Your task to perform on an android device: turn off wifi Image 0: 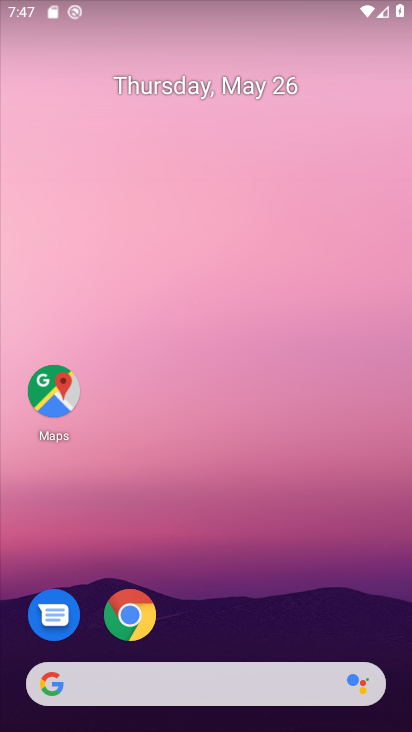
Step 0: drag from (229, 613) to (223, 381)
Your task to perform on an android device: turn off wifi Image 1: 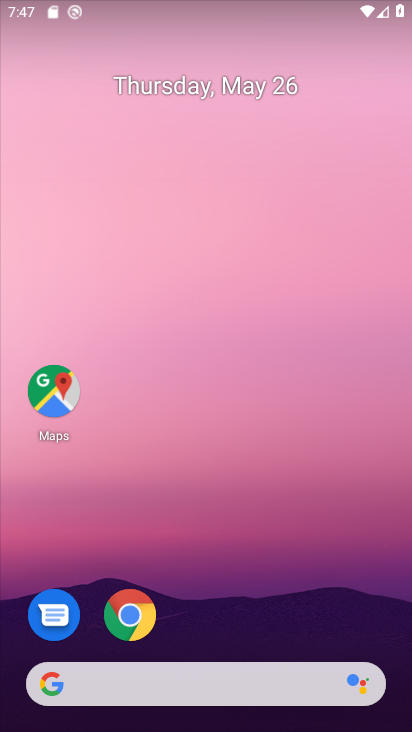
Step 1: drag from (231, 617) to (231, 277)
Your task to perform on an android device: turn off wifi Image 2: 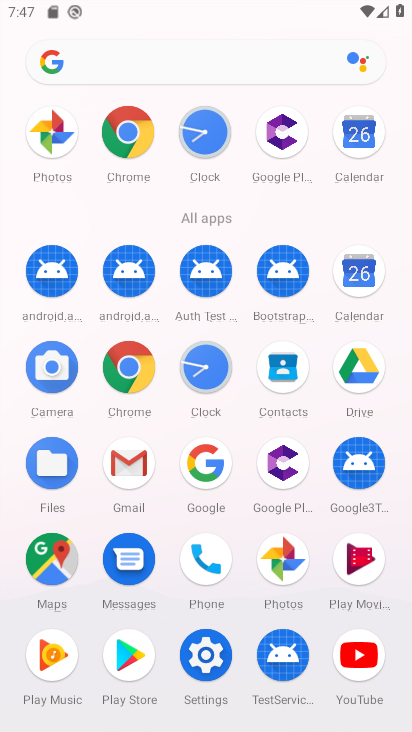
Step 2: click (225, 658)
Your task to perform on an android device: turn off wifi Image 3: 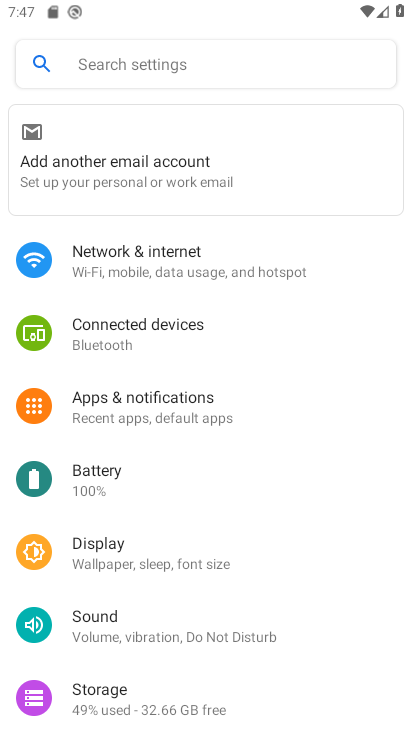
Step 3: click (152, 268)
Your task to perform on an android device: turn off wifi Image 4: 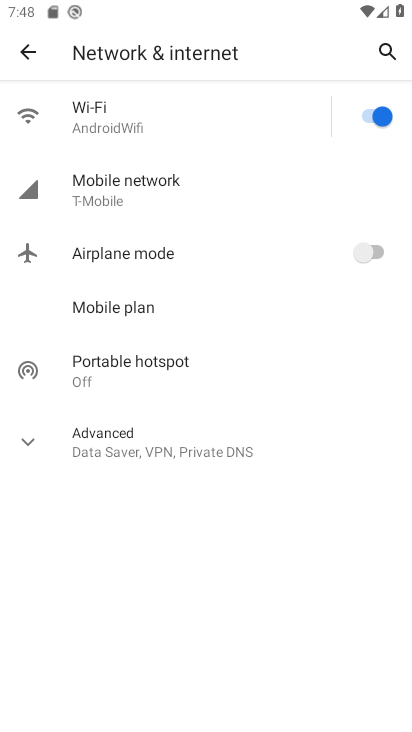
Step 4: click (378, 108)
Your task to perform on an android device: turn off wifi Image 5: 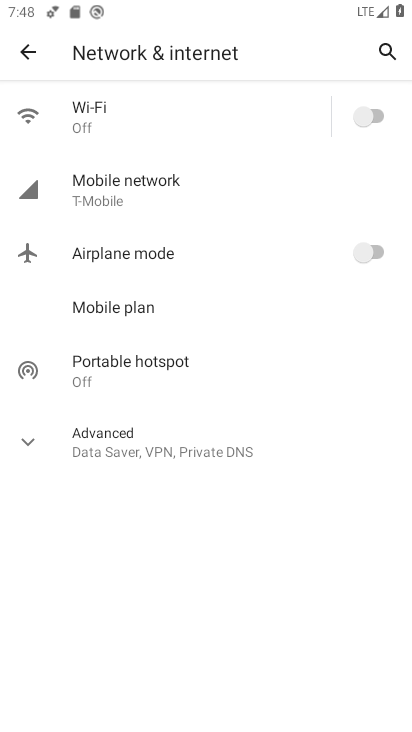
Step 5: task complete